Your task to perform on an android device: Go to Wikipedia Image 0: 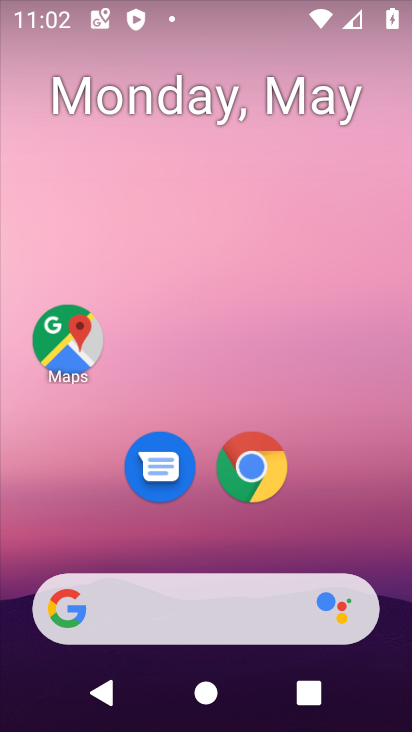
Step 0: click (255, 467)
Your task to perform on an android device: Go to Wikipedia Image 1: 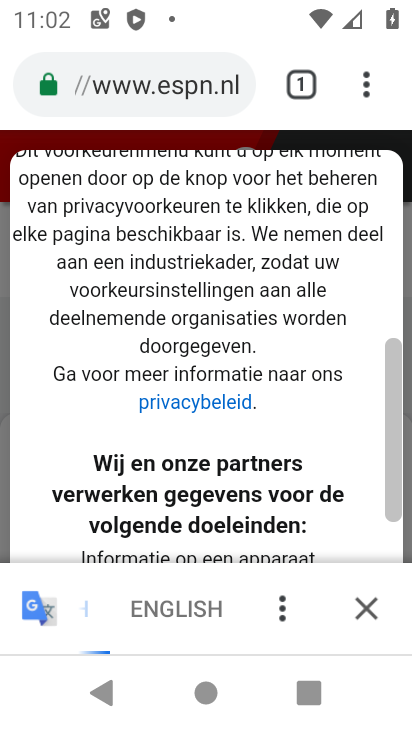
Step 1: click (147, 93)
Your task to perform on an android device: Go to Wikipedia Image 2: 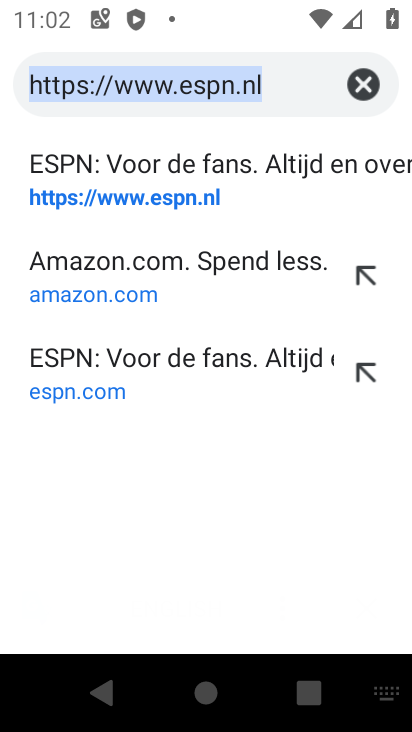
Step 2: type "wikipedia"
Your task to perform on an android device: Go to Wikipedia Image 3: 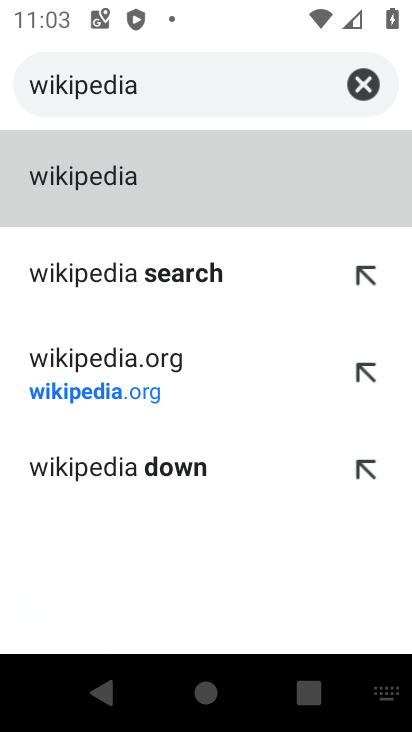
Step 3: click (100, 161)
Your task to perform on an android device: Go to Wikipedia Image 4: 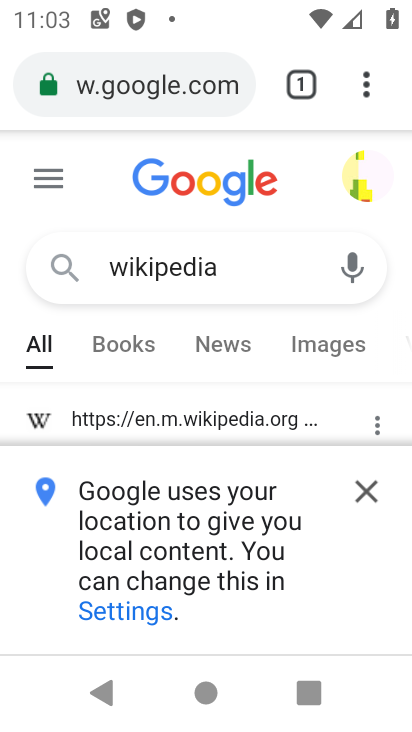
Step 4: click (374, 484)
Your task to perform on an android device: Go to Wikipedia Image 5: 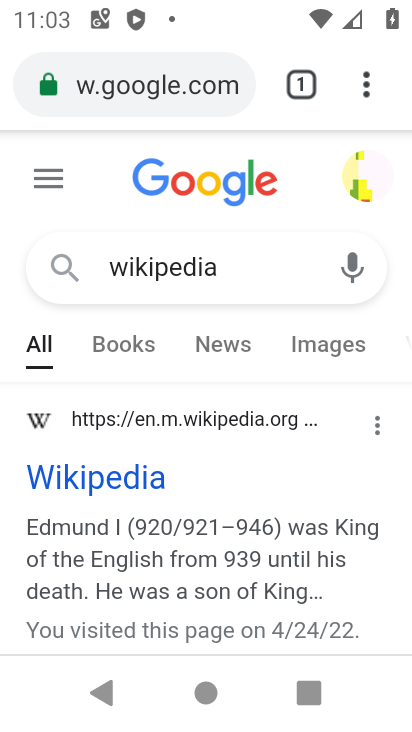
Step 5: click (105, 481)
Your task to perform on an android device: Go to Wikipedia Image 6: 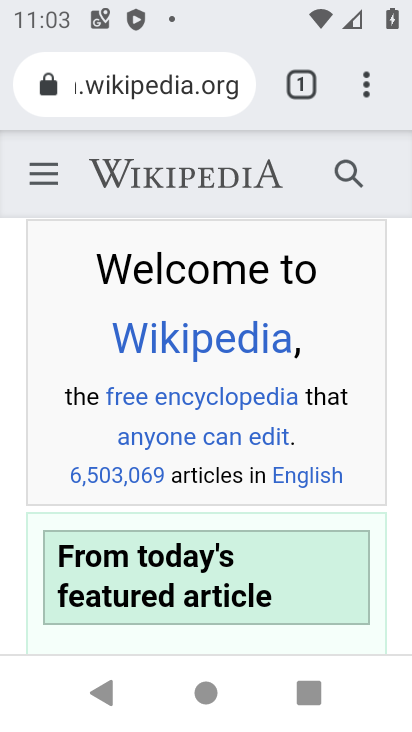
Step 6: task complete